Your task to perform on an android device: snooze an email in the gmail app Image 0: 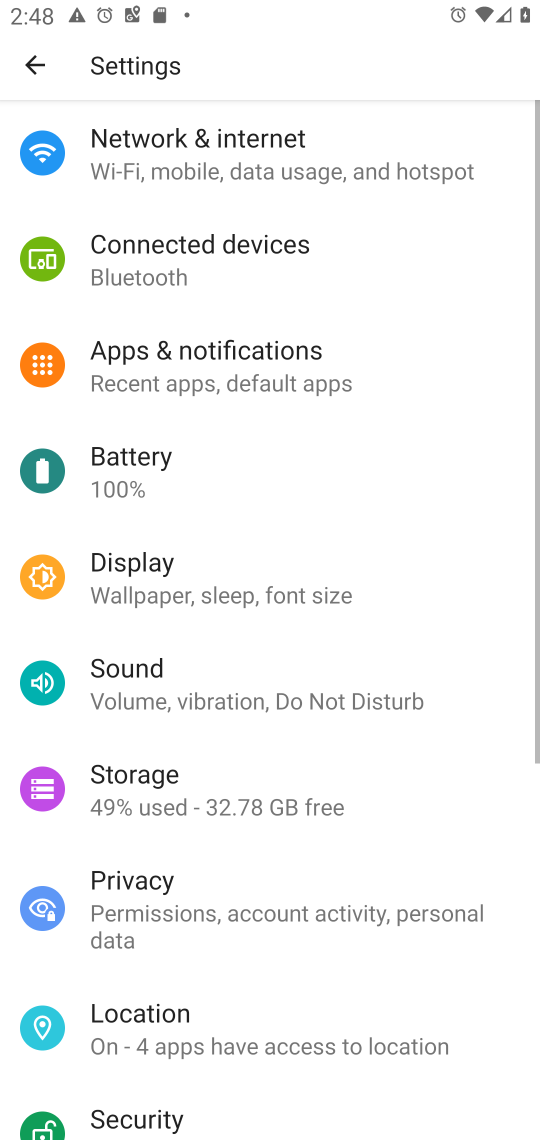
Step 0: press home button
Your task to perform on an android device: snooze an email in the gmail app Image 1: 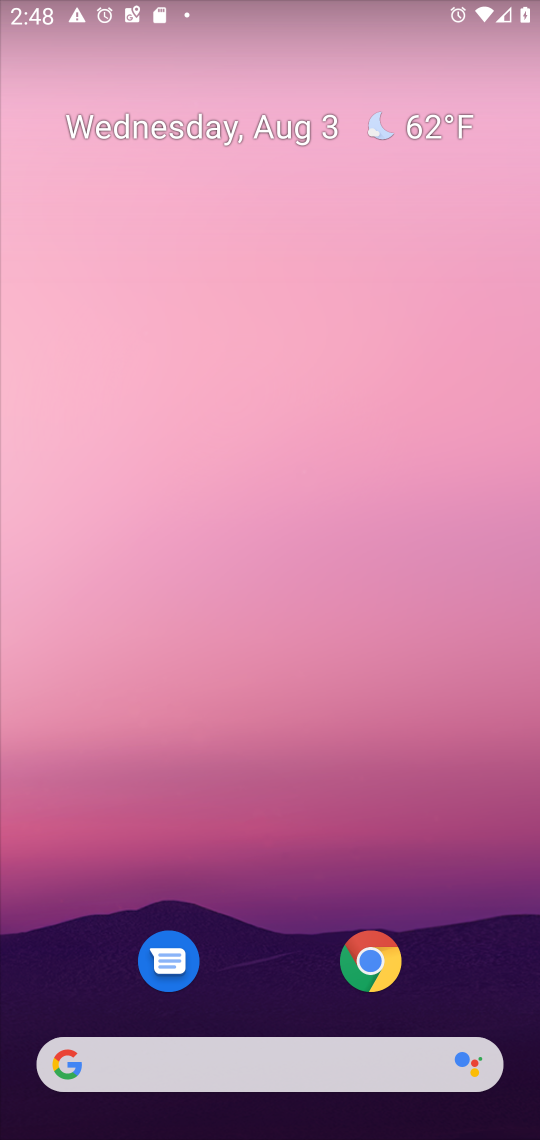
Step 1: drag from (268, 916) to (291, 27)
Your task to perform on an android device: snooze an email in the gmail app Image 2: 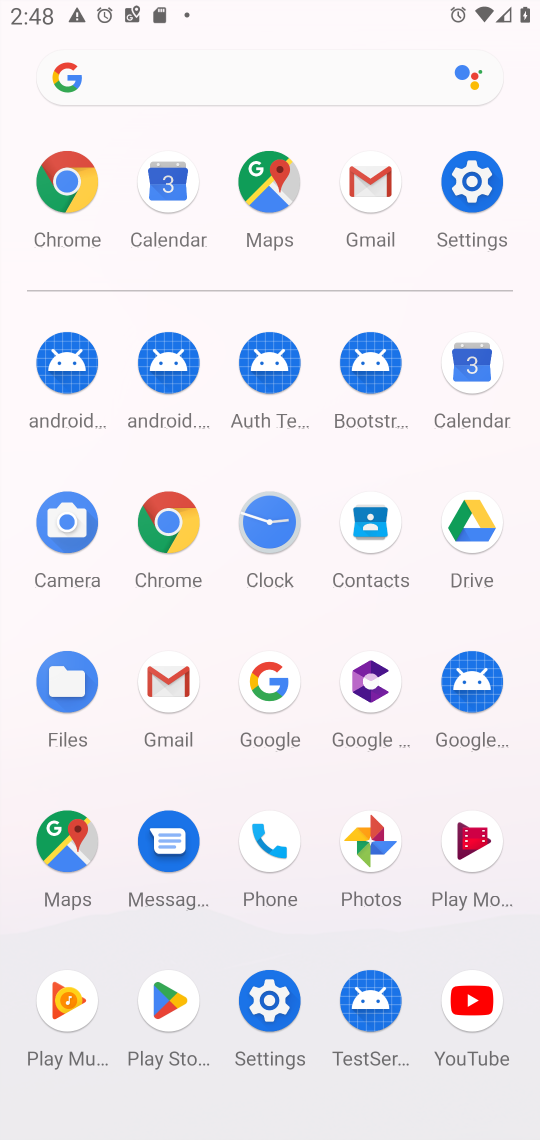
Step 2: click (374, 182)
Your task to perform on an android device: snooze an email in the gmail app Image 3: 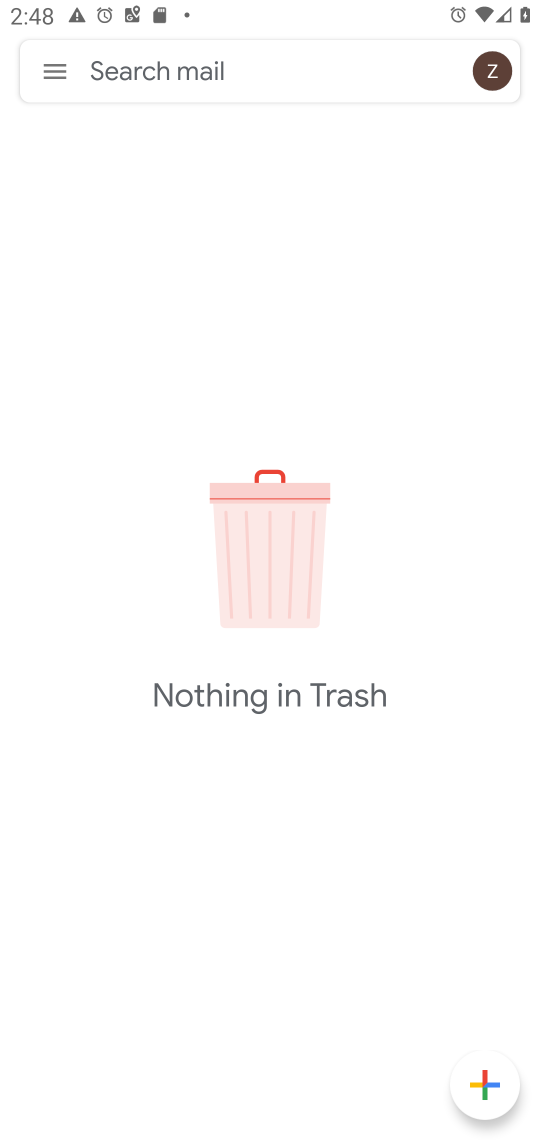
Step 3: click (62, 74)
Your task to perform on an android device: snooze an email in the gmail app Image 4: 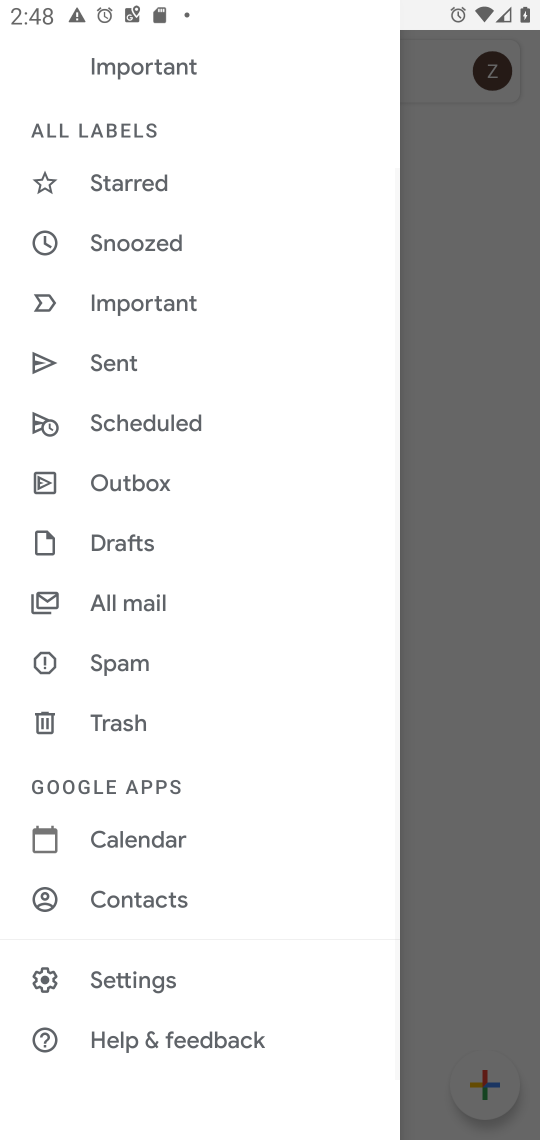
Step 4: click (97, 598)
Your task to perform on an android device: snooze an email in the gmail app Image 5: 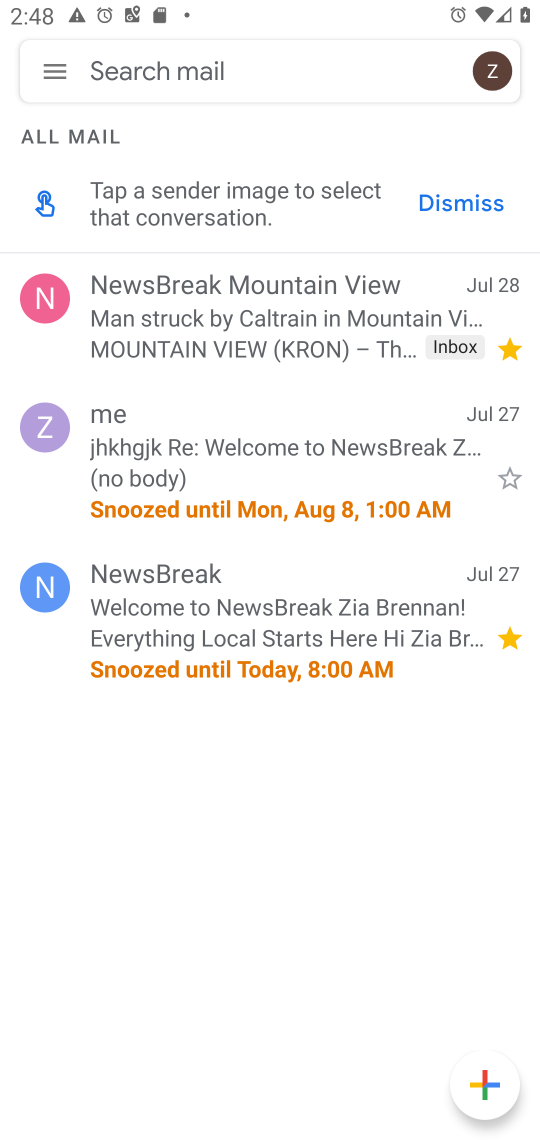
Step 5: click (182, 325)
Your task to perform on an android device: snooze an email in the gmail app Image 6: 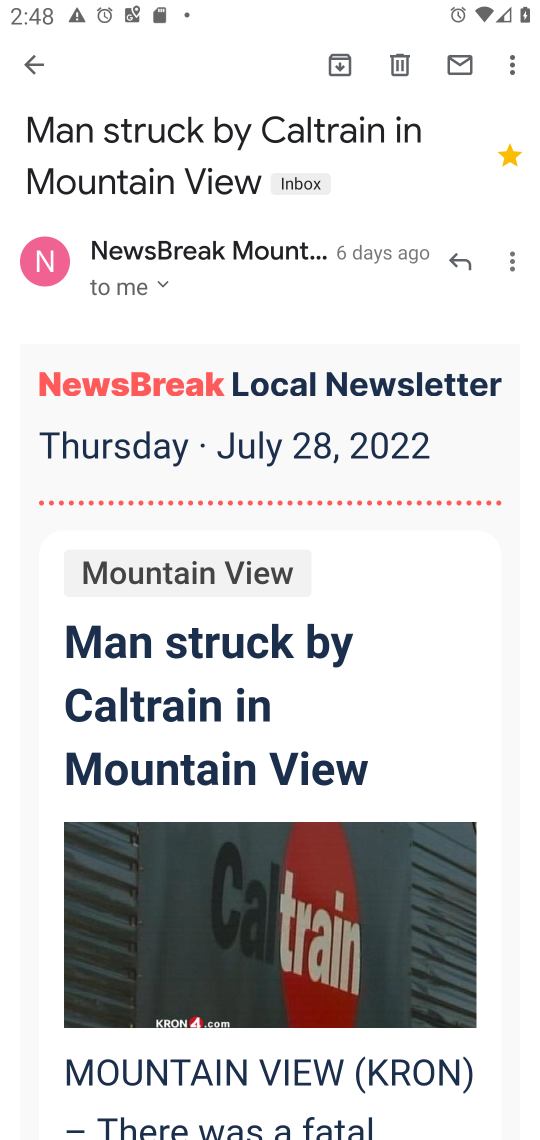
Step 6: click (510, 63)
Your task to perform on an android device: snooze an email in the gmail app Image 7: 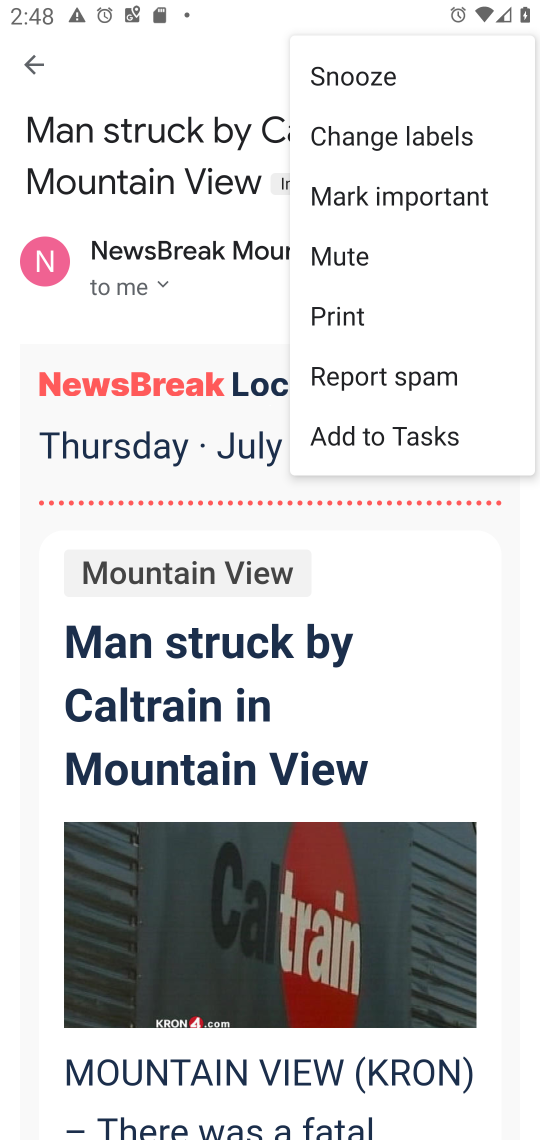
Step 7: click (344, 75)
Your task to perform on an android device: snooze an email in the gmail app Image 8: 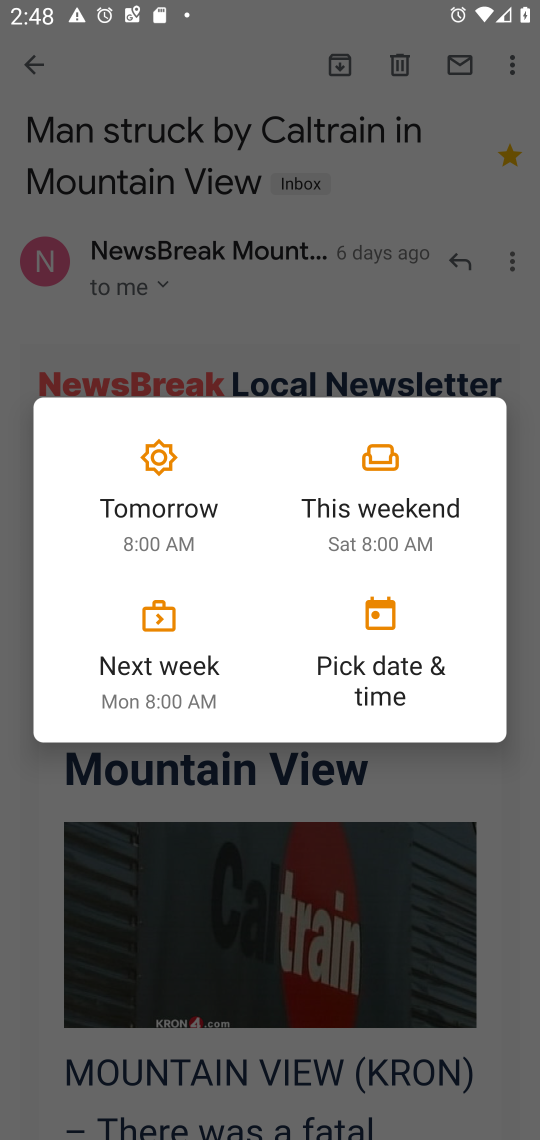
Step 8: click (160, 488)
Your task to perform on an android device: snooze an email in the gmail app Image 9: 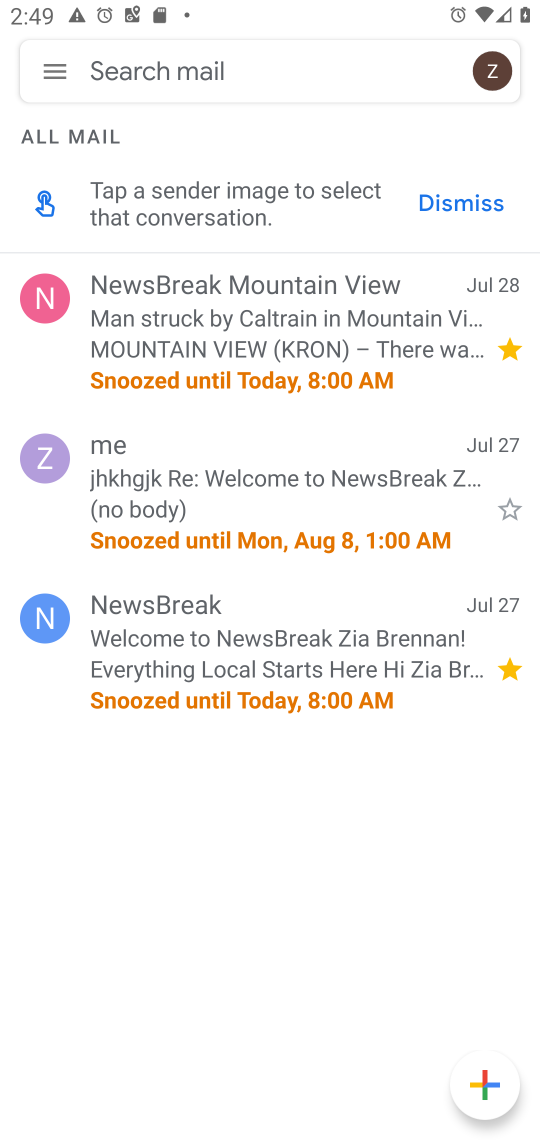
Step 9: task complete